Your task to perform on an android device: add a contact Image 0: 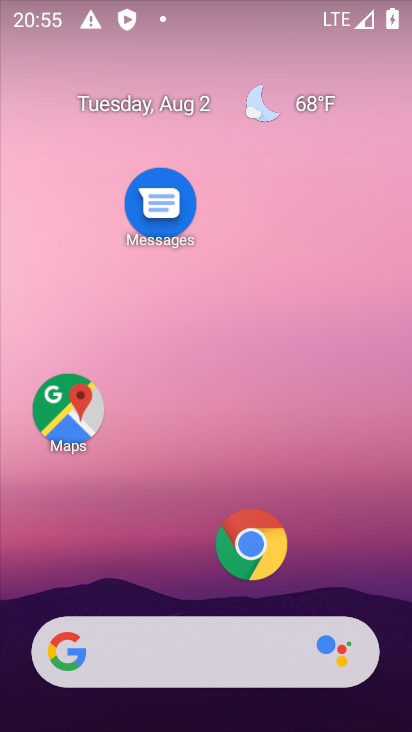
Step 0: drag from (183, 566) to (186, 218)
Your task to perform on an android device: add a contact Image 1: 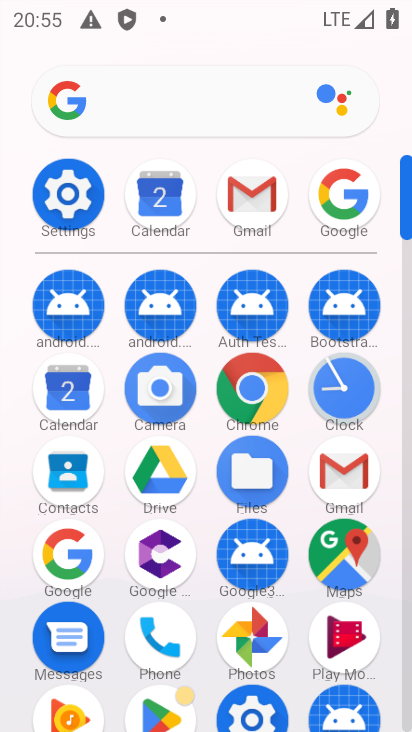
Step 1: click (76, 472)
Your task to perform on an android device: add a contact Image 2: 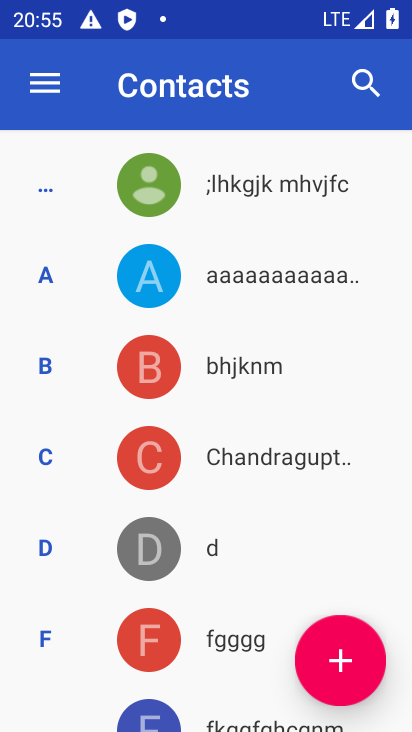
Step 2: click (323, 642)
Your task to perform on an android device: add a contact Image 3: 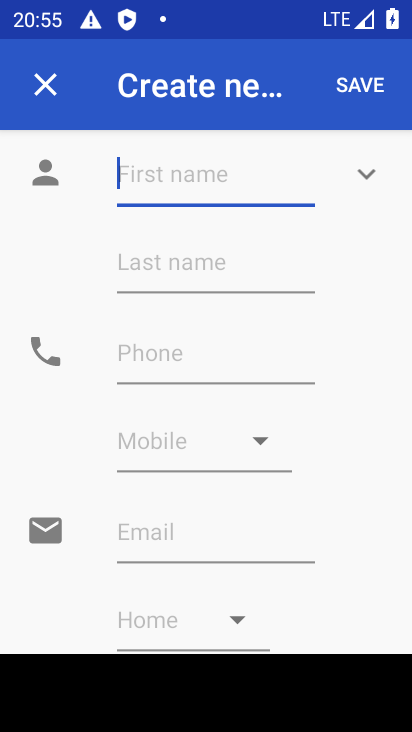
Step 3: type "gxdszdc"
Your task to perform on an android device: add a contact Image 4: 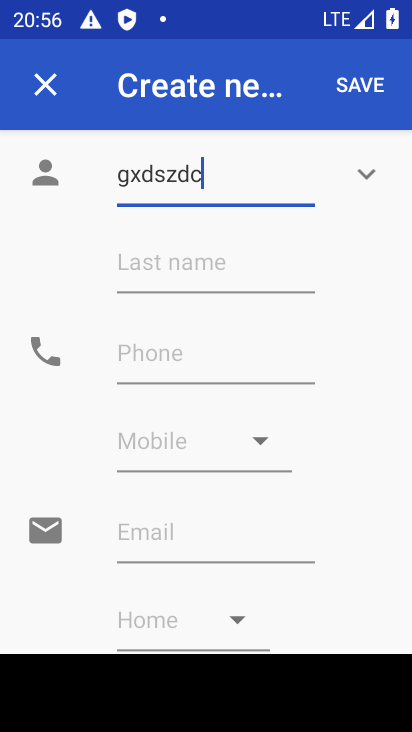
Step 4: click (160, 345)
Your task to perform on an android device: add a contact Image 5: 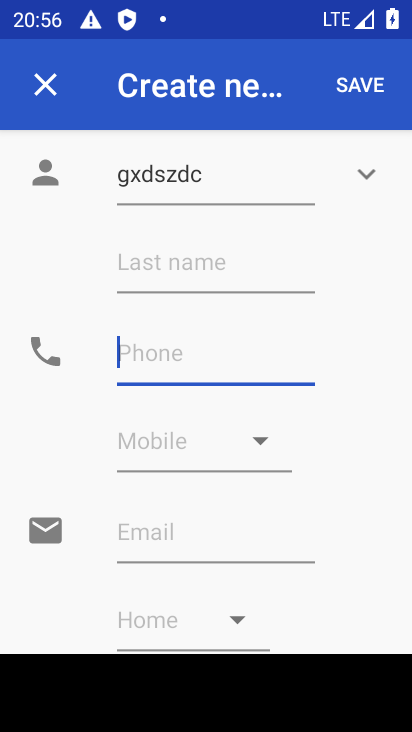
Step 5: type "8657563554"
Your task to perform on an android device: add a contact Image 6: 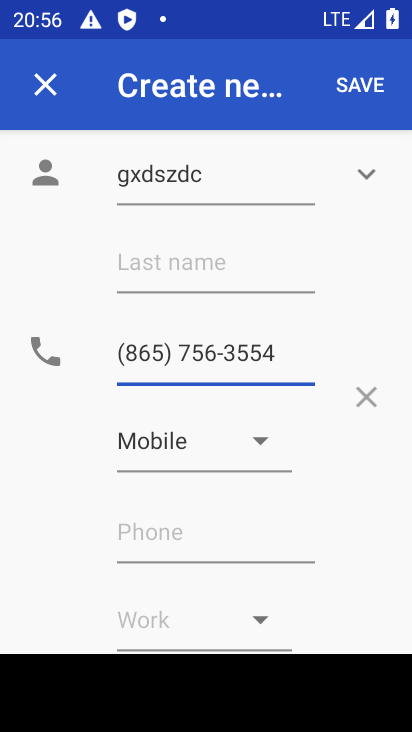
Step 6: click (344, 99)
Your task to perform on an android device: add a contact Image 7: 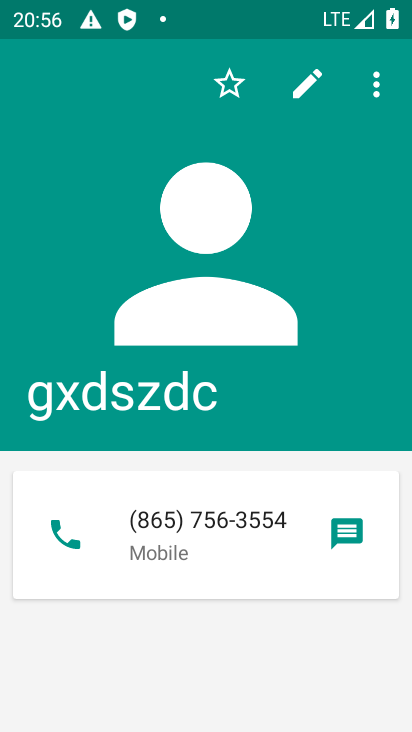
Step 7: task complete